Your task to perform on an android device: toggle priority inbox in the gmail app Image 0: 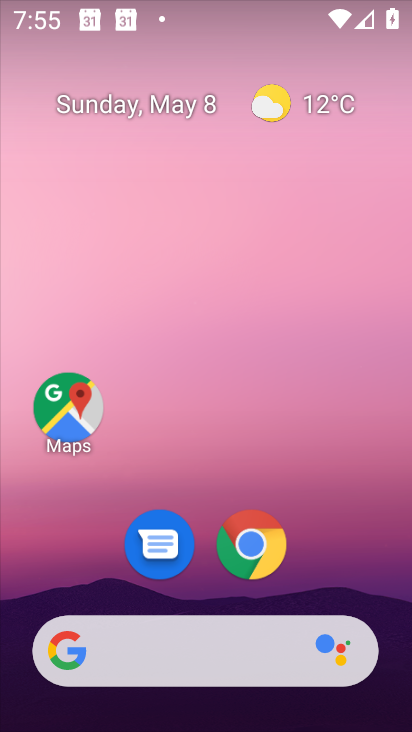
Step 0: drag from (327, 559) to (240, 127)
Your task to perform on an android device: toggle priority inbox in the gmail app Image 1: 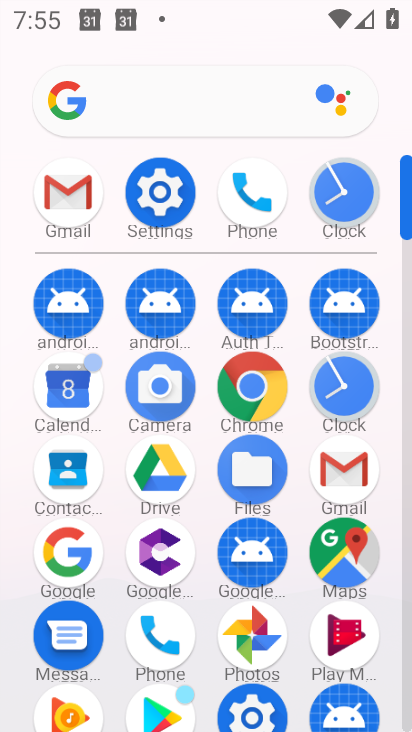
Step 1: click (58, 195)
Your task to perform on an android device: toggle priority inbox in the gmail app Image 2: 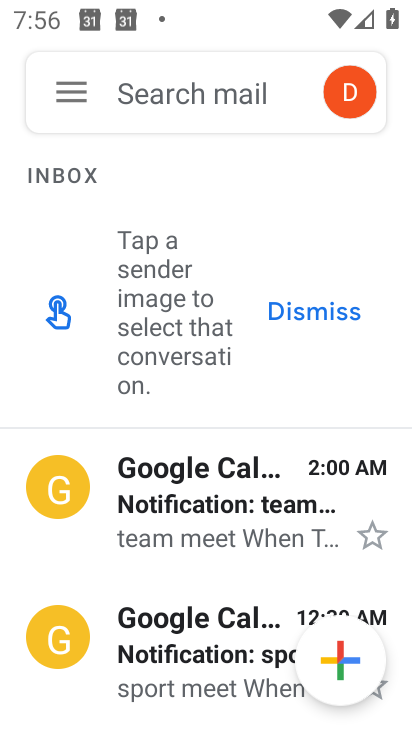
Step 2: click (63, 87)
Your task to perform on an android device: toggle priority inbox in the gmail app Image 3: 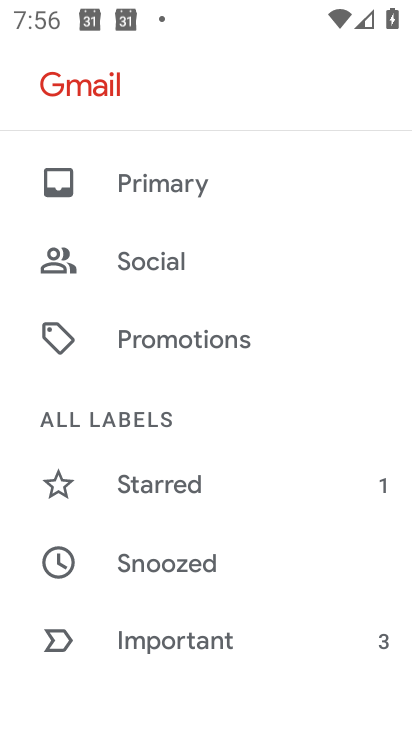
Step 3: drag from (254, 593) to (252, 282)
Your task to perform on an android device: toggle priority inbox in the gmail app Image 4: 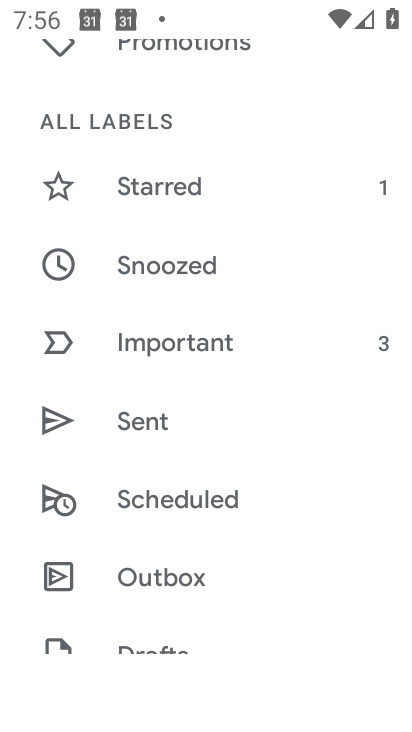
Step 4: drag from (227, 568) to (146, 193)
Your task to perform on an android device: toggle priority inbox in the gmail app Image 5: 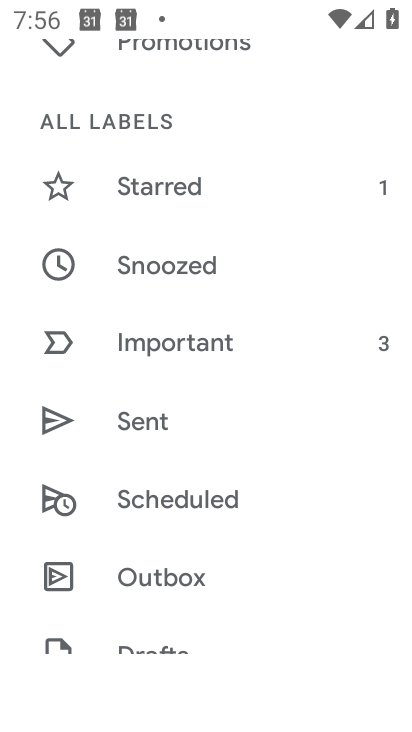
Step 5: drag from (225, 605) to (190, 215)
Your task to perform on an android device: toggle priority inbox in the gmail app Image 6: 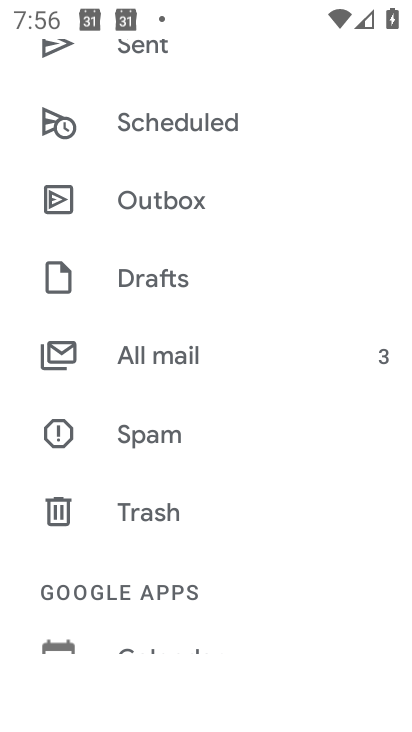
Step 6: drag from (217, 477) to (185, 61)
Your task to perform on an android device: toggle priority inbox in the gmail app Image 7: 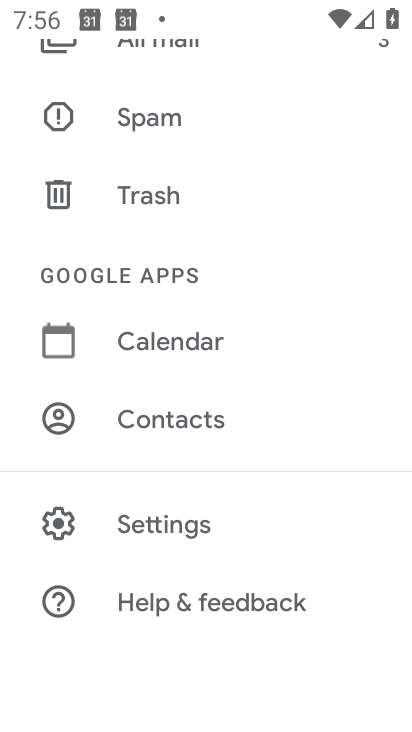
Step 7: click (175, 524)
Your task to perform on an android device: toggle priority inbox in the gmail app Image 8: 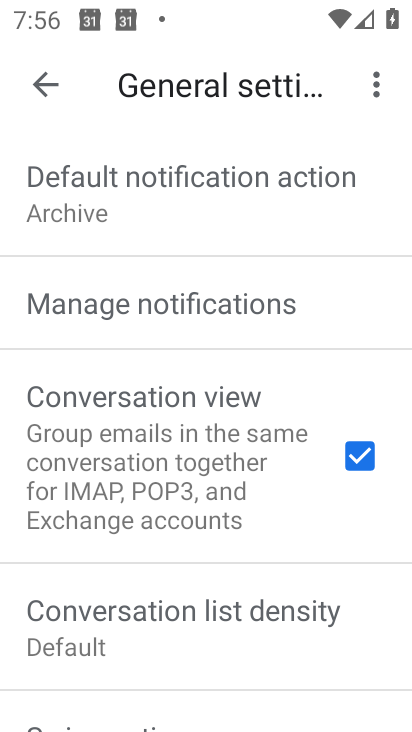
Step 8: click (37, 75)
Your task to perform on an android device: toggle priority inbox in the gmail app Image 9: 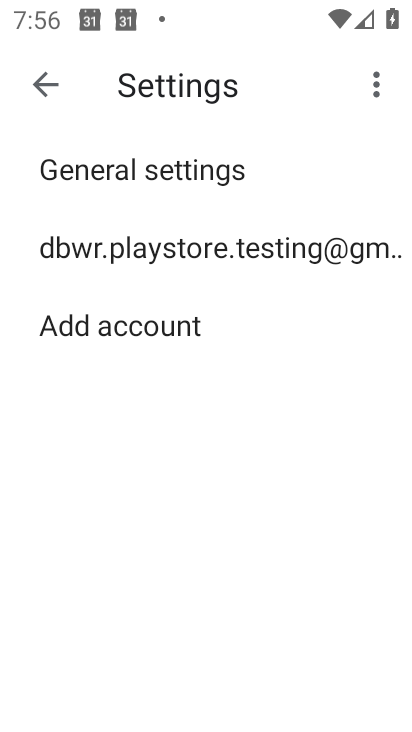
Step 9: click (93, 243)
Your task to perform on an android device: toggle priority inbox in the gmail app Image 10: 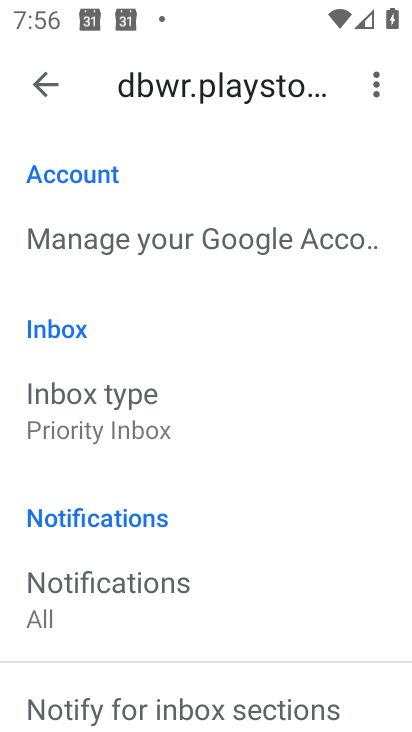
Step 10: click (88, 413)
Your task to perform on an android device: toggle priority inbox in the gmail app Image 11: 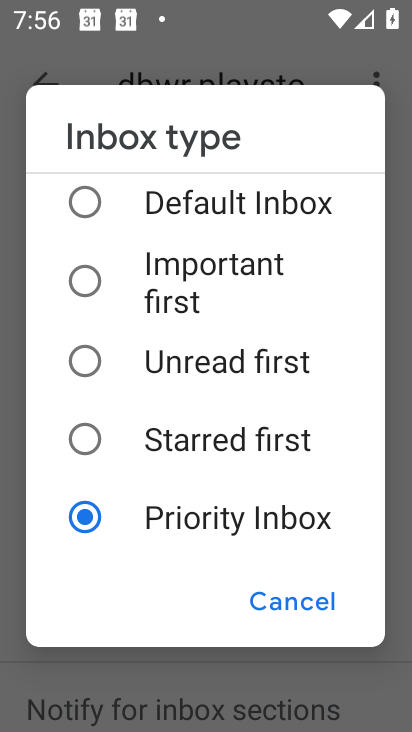
Step 11: click (82, 367)
Your task to perform on an android device: toggle priority inbox in the gmail app Image 12: 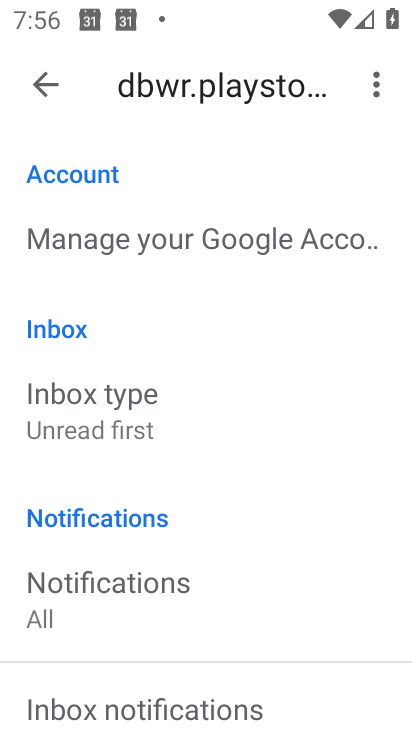
Step 12: task complete